Your task to perform on an android device: open app "Adobe Express: Graphic Design" (install if not already installed), go to login, and select forgot password Image 0: 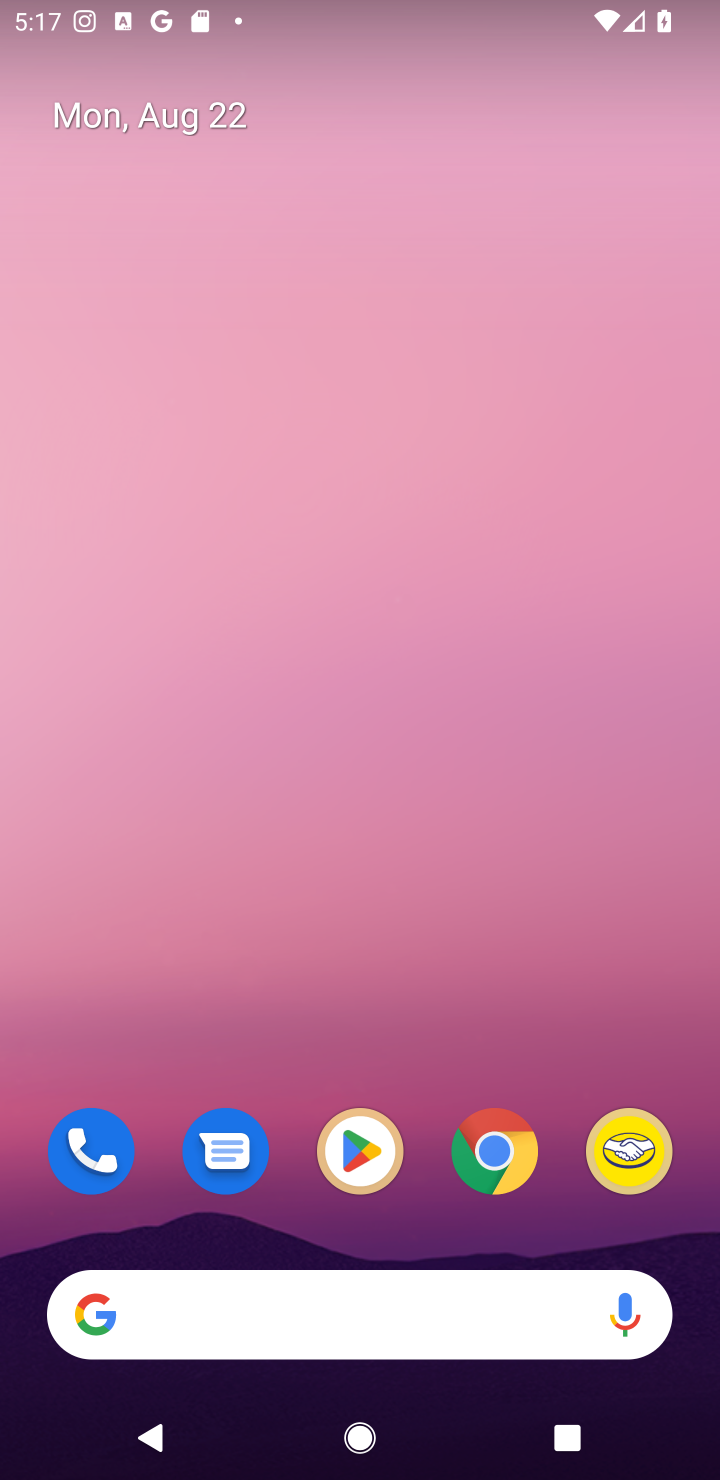
Step 0: click (349, 1157)
Your task to perform on an android device: open app "Adobe Express: Graphic Design" (install if not already installed), go to login, and select forgot password Image 1: 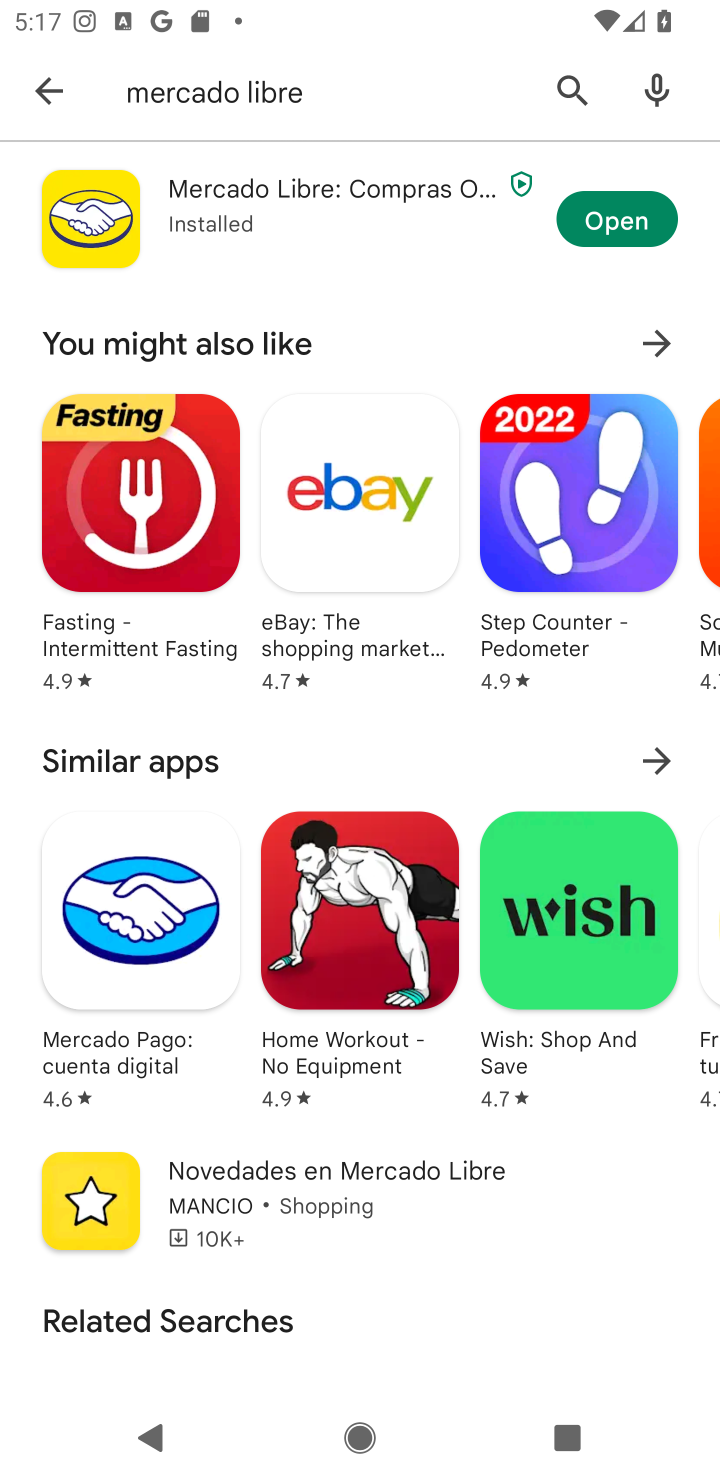
Step 1: click (556, 73)
Your task to perform on an android device: open app "Adobe Express: Graphic Design" (install if not already installed), go to login, and select forgot password Image 2: 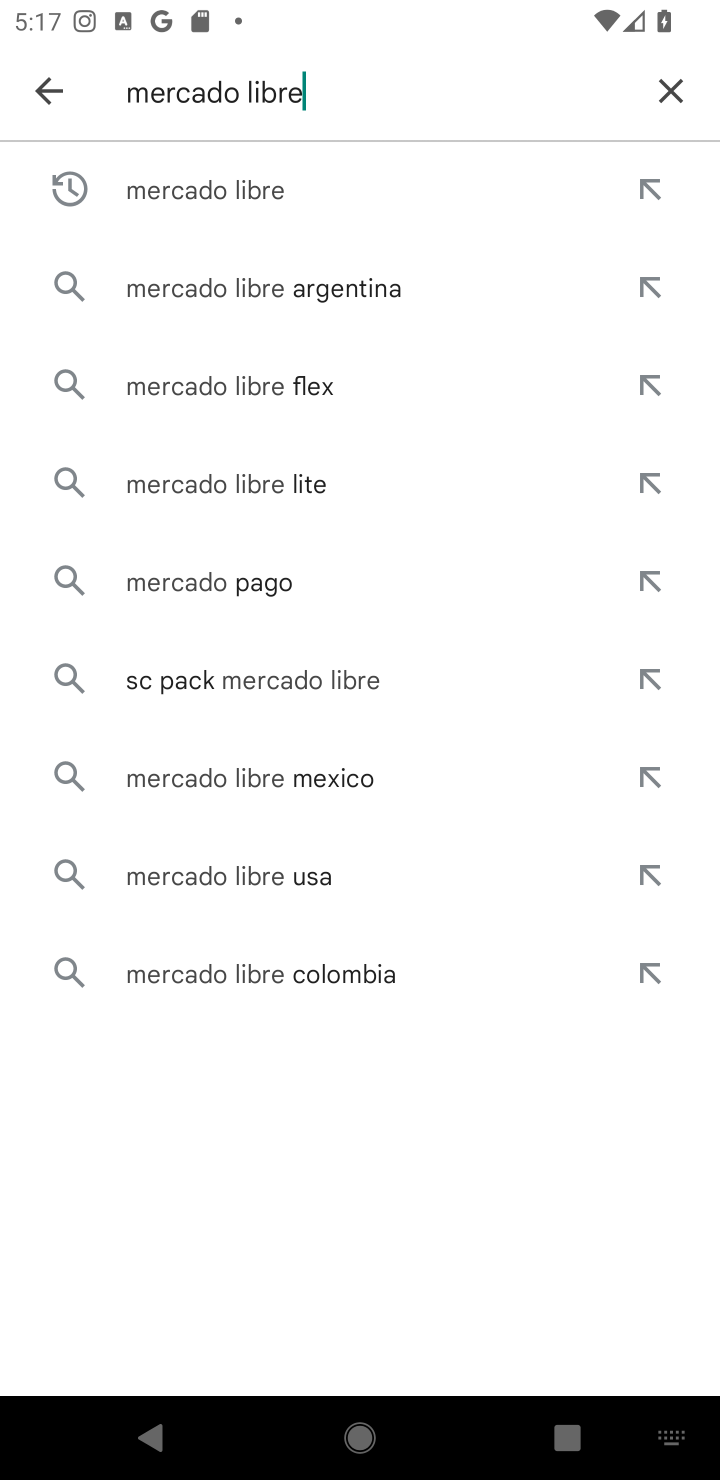
Step 2: click (659, 91)
Your task to perform on an android device: open app "Adobe Express: Graphic Design" (install if not already installed), go to login, and select forgot password Image 3: 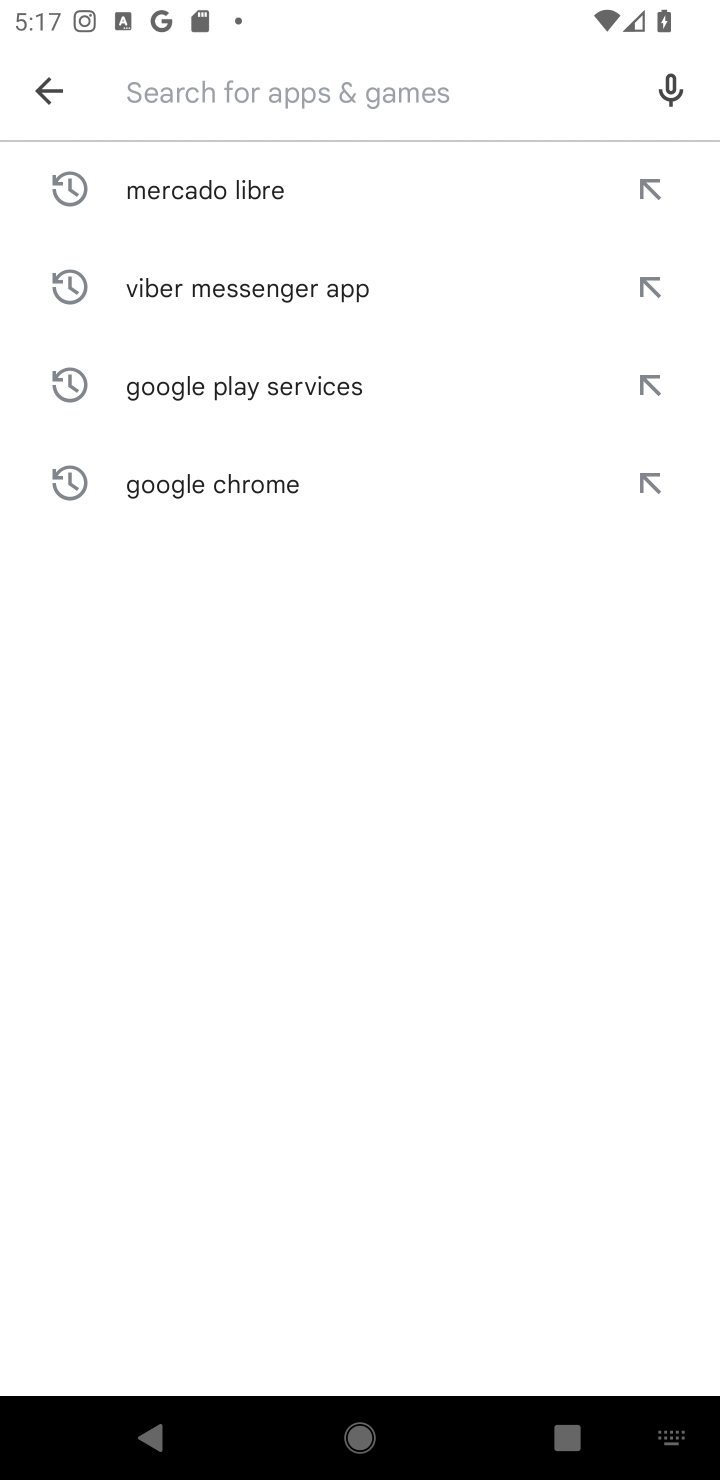
Step 3: type "Adobe Express: Graphic Design"
Your task to perform on an android device: open app "Adobe Express: Graphic Design" (install if not already installed), go to login, and select forgot password Image 4: 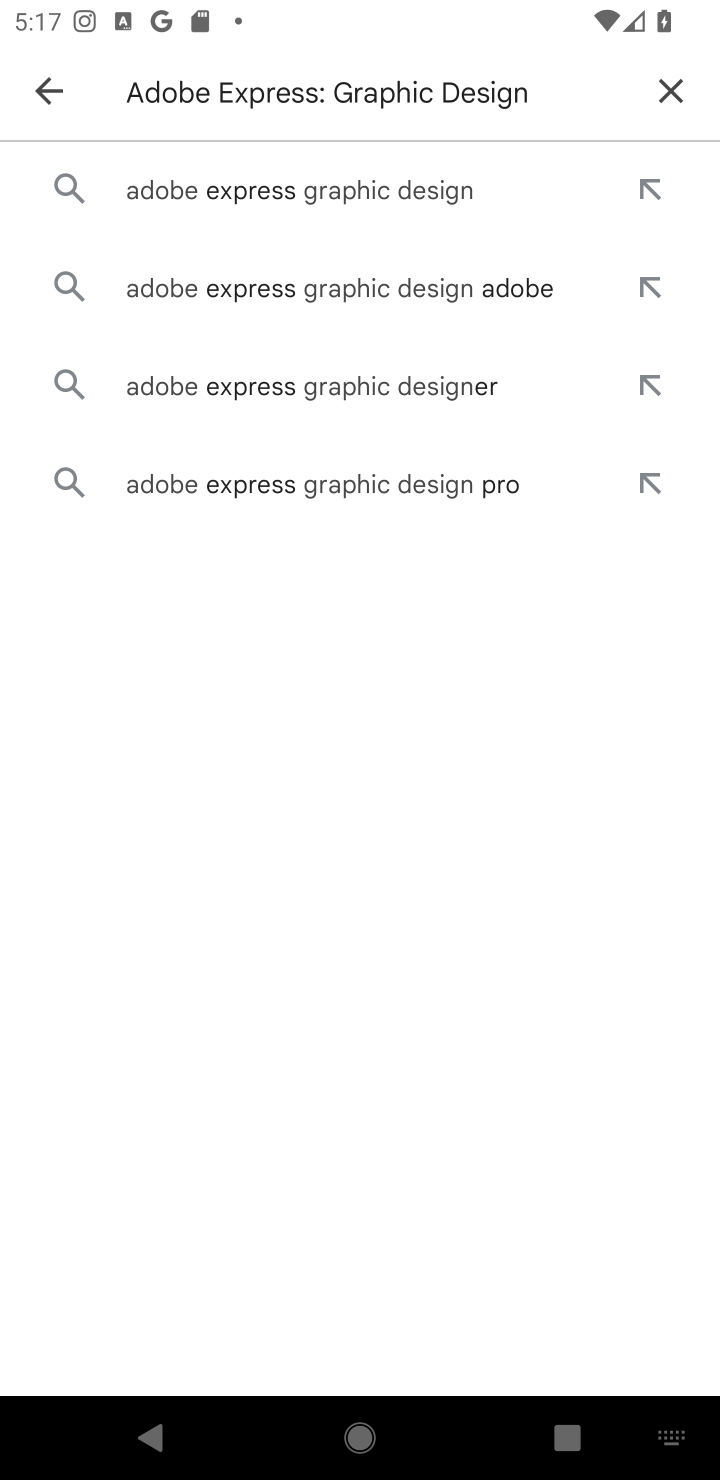
Step 4: click (343, 181)
Your task to perform on an android device: open app "Adobe Express: Graphic Design" (install if not already installed), go to login, and select forgot password Image 5: 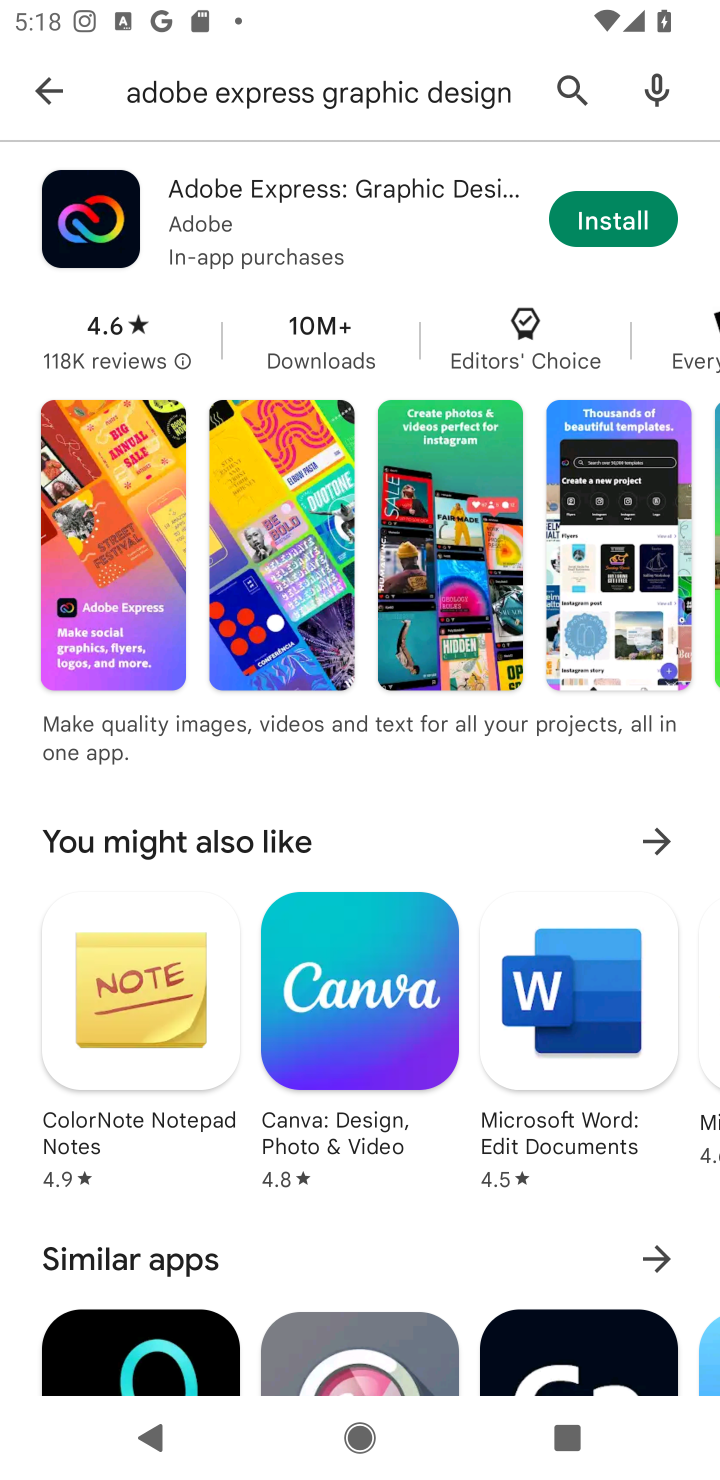
Step 5: click (636, 217)
Your task to perform on an android device: open app "Adobe Express: Graphic Design" (install if not already installed), go to login, and select forgot password Image 6: 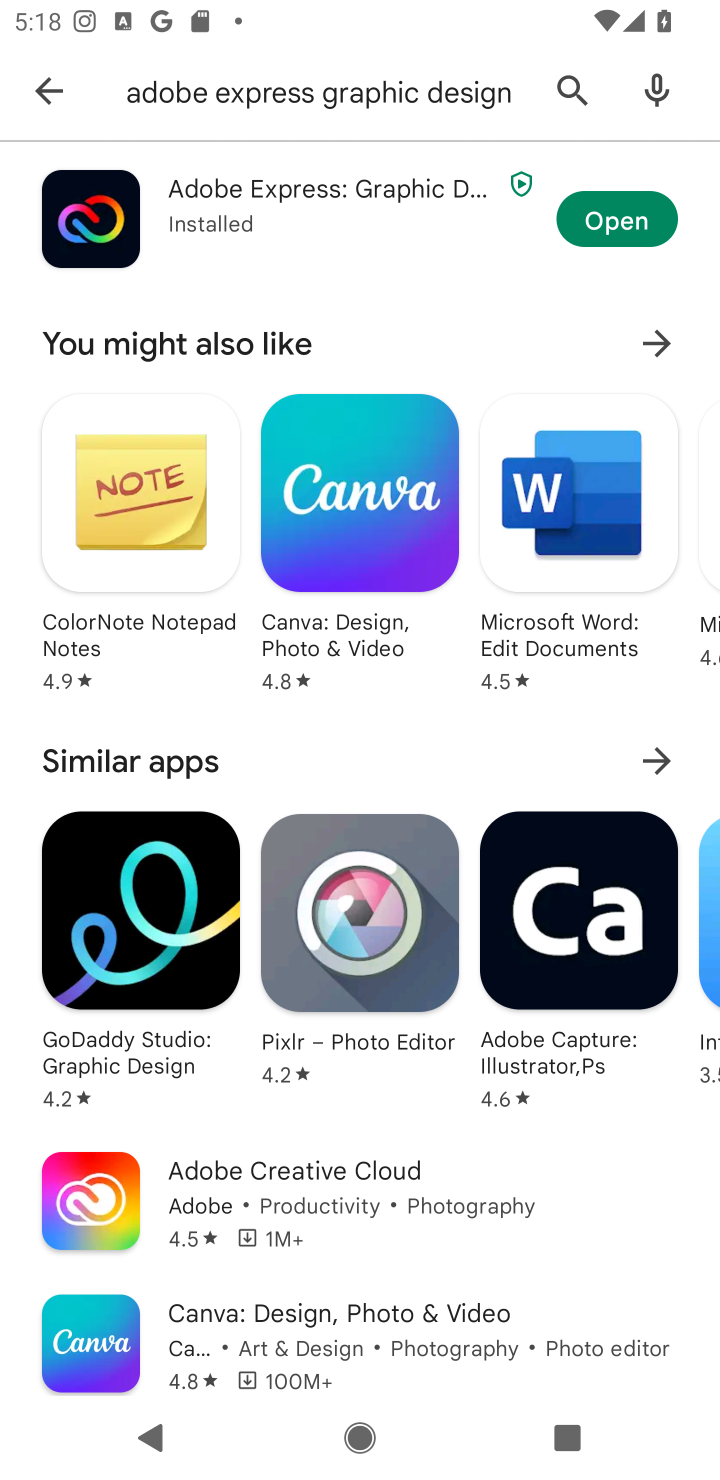
Step 6: click (646, 216)
Your task to perform on an android device: open app "Adobe Express: Graphic Design" (install if not already installed), go to login, and select forgot password Image 7: 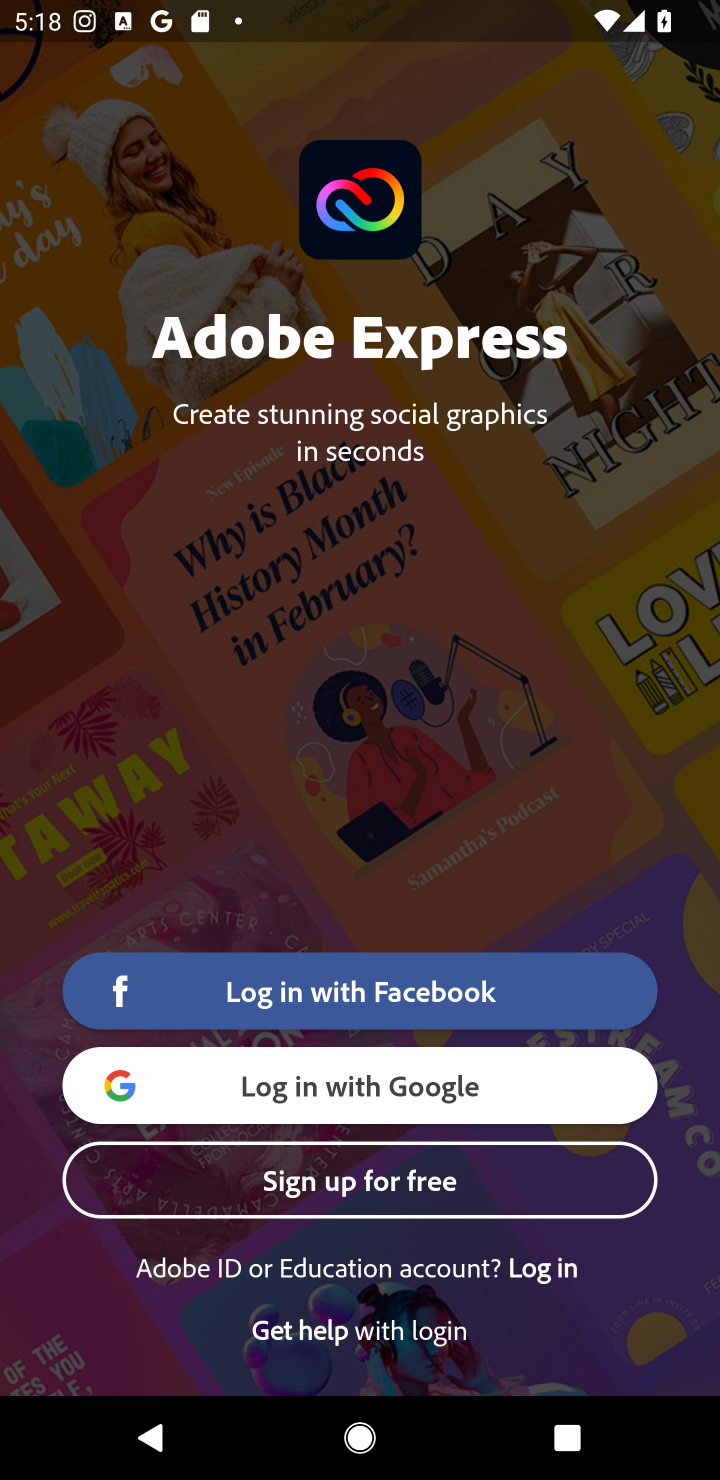
Step 7: click (404, 1197)
Your task to perform on an android device: open app "Adobe Express: Graphic Design" (install if not already installed), go to login, and select forgot password Image 8: 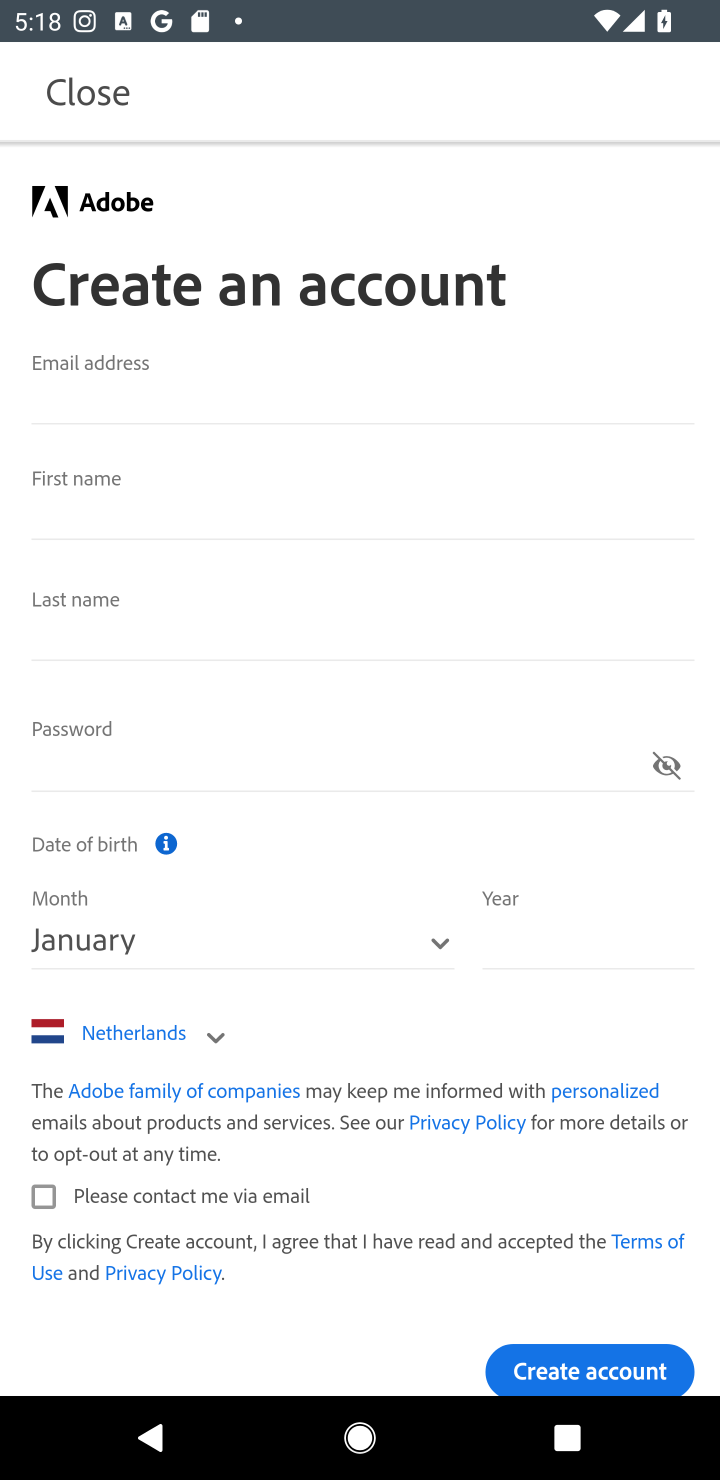
Step 8: task complete